Your task to perform on an android device: Go to ESPN.com Image 0: 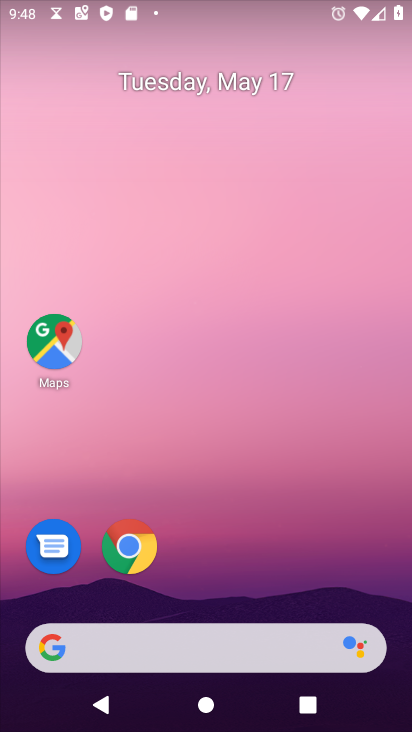
Step 0: click (139, 539)
Your task to perform on an android device: Go to ESPN.com Image 1: 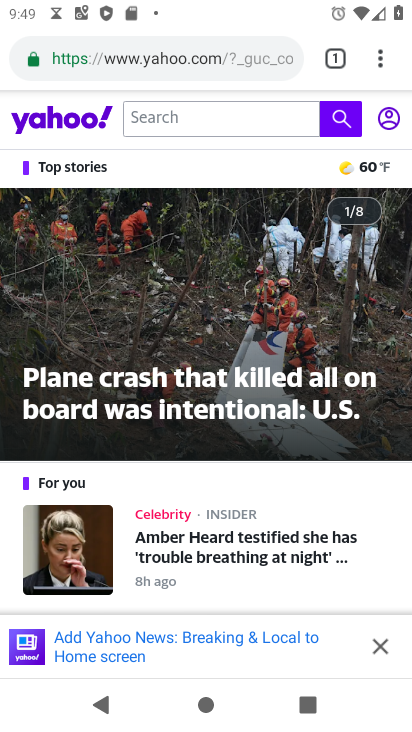
Step 1: click (159, 57)
Your task to perform on an android device: Go to ESPN.com Image 2: 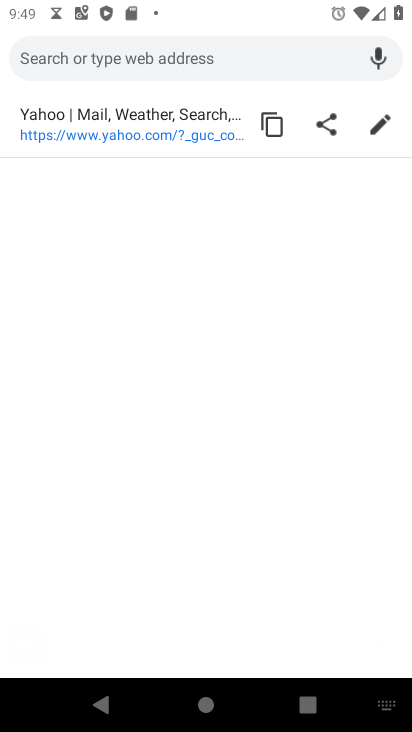
Step 2: type "ESPN.com"
Your task to perform on an android device: Go to ESPN.com Image 3: 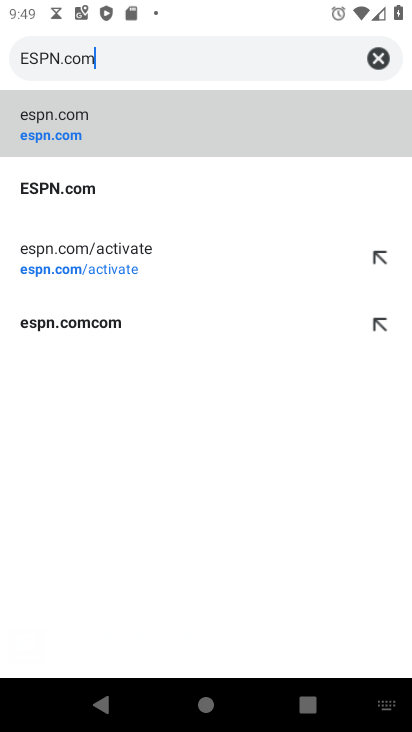
Step 3: click (43, 134)
Your task to perform on an android device: Go to ESPN.com Image 4: 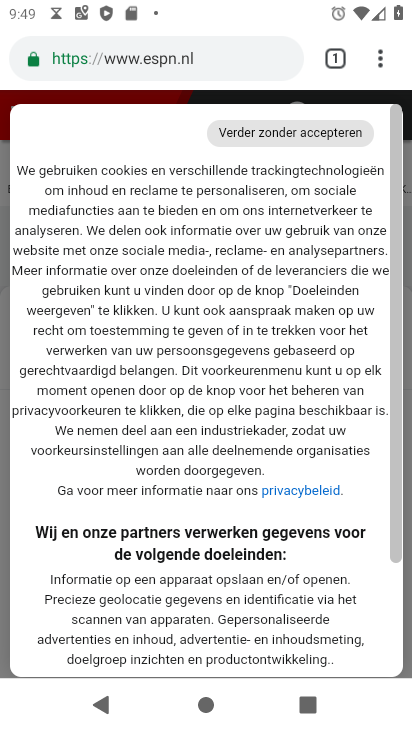
Step 4: task complete